Your task to perform on an android device: Open wifi settings Image 0: 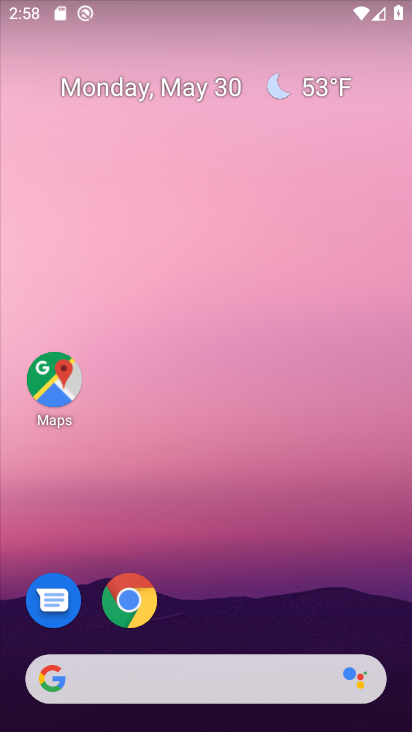
Step 0: drag from (390, 540) to (408, 94)
Your task to perform on an android device: Open wifi settings Image 1: 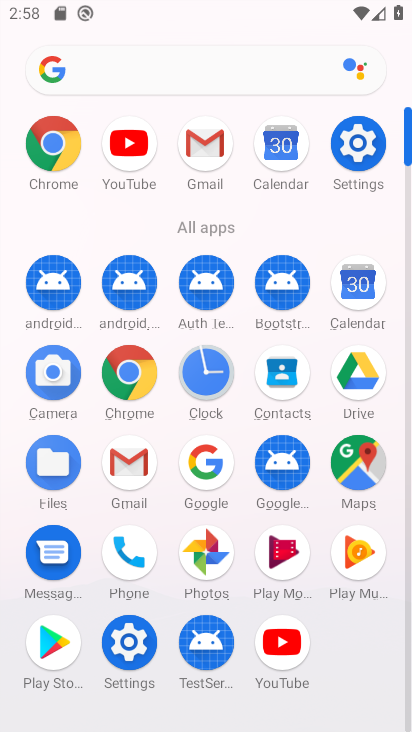
Step 1: click (349, 158)
Your task to perform on an android device: Open wifi settings Image 2: 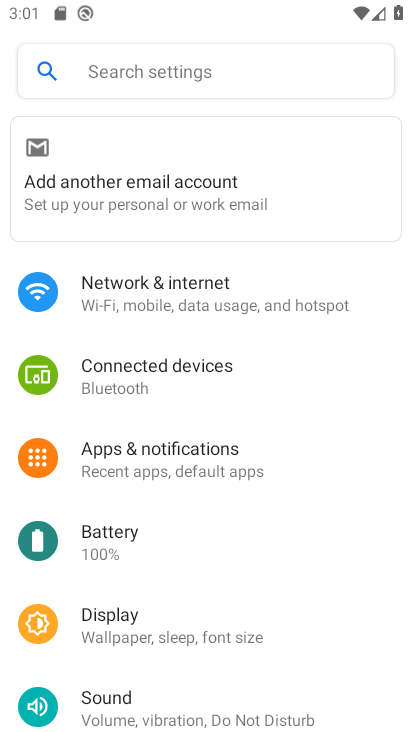
Step 2: click (183, 304)
Your task to perform on an android device: Open wifi settings Image 3: 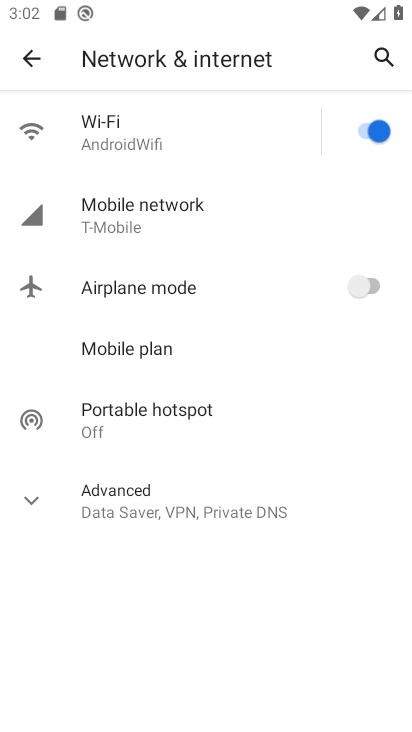
Step 3: click (136, 123)
Your task to perform on an android device: Open wifi settings Image 4: 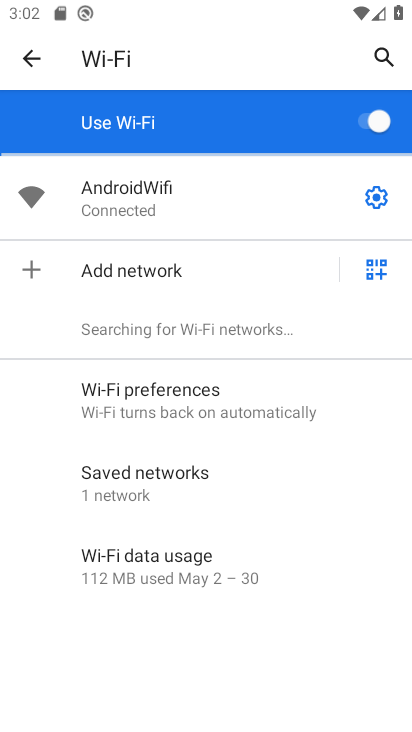
Step 4: task complete